Your task to perform on an android device: check android version Image 0: 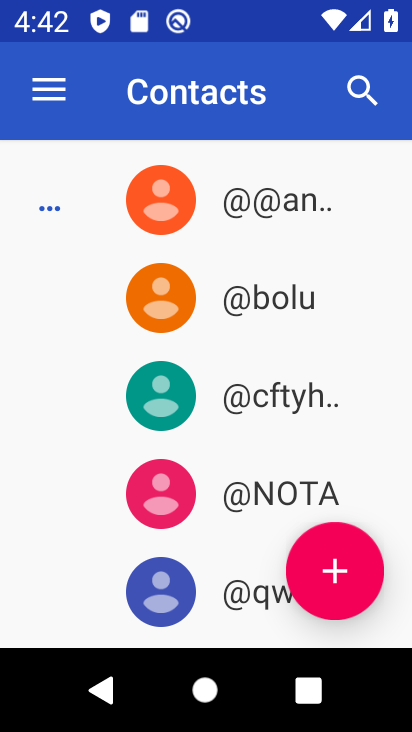
Step 0: press home button
Your task to perform on an android device: check android version Image 1: 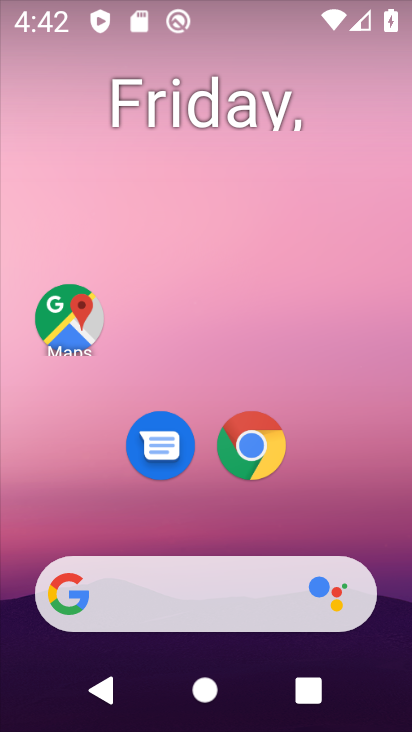
Step 1: drag from (269, 522) to (288, 0)
Your task to perform on an android device: check android version Image 2: 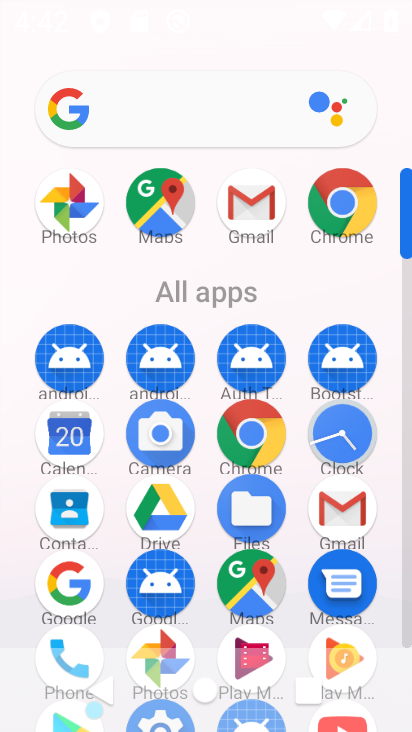
Step 2: click (399, 469)
Your task to perform on an android device: check android version Image 3: 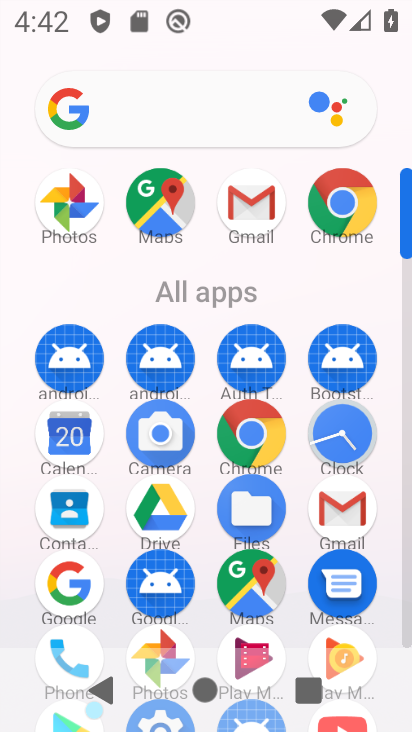
Step 3: click (408, 476)
Your task to perform on an android device: check android version Image 4: 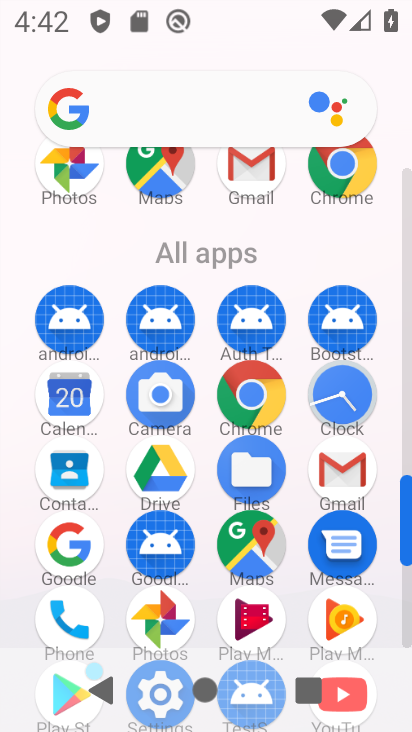
Step 4: click (404, 606)
Your task to perform on an android device: check android version Image 5: 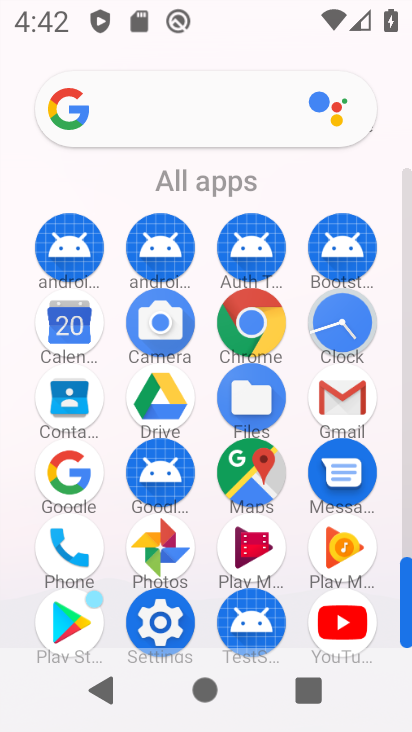
Step 5: click (165, 614)
Your task to perform on an android device: check android version Image 6: 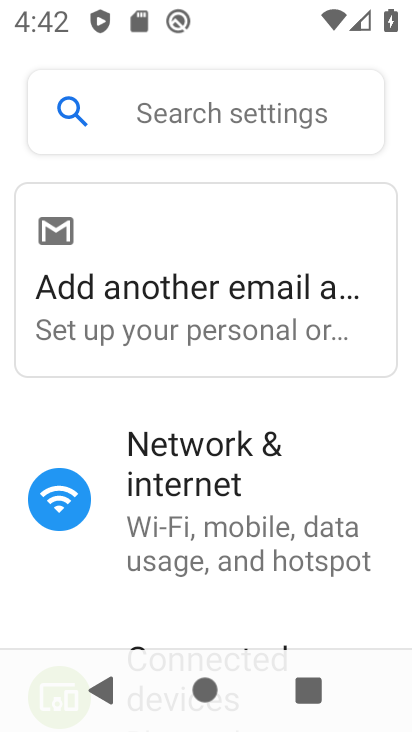
Step 6: drag from (216, 578) to (323, 35)
Your task to perform on an android device: check android version Image 7: 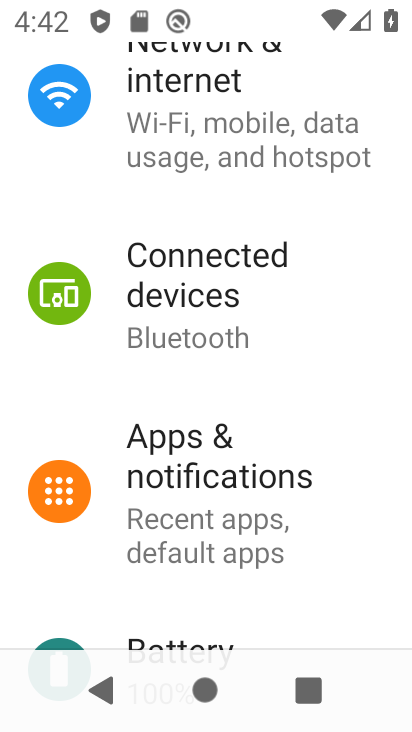
Step 7: drag from (242, 507) to (364, 1)
Your task to perform on an android device: check android version Image 8: 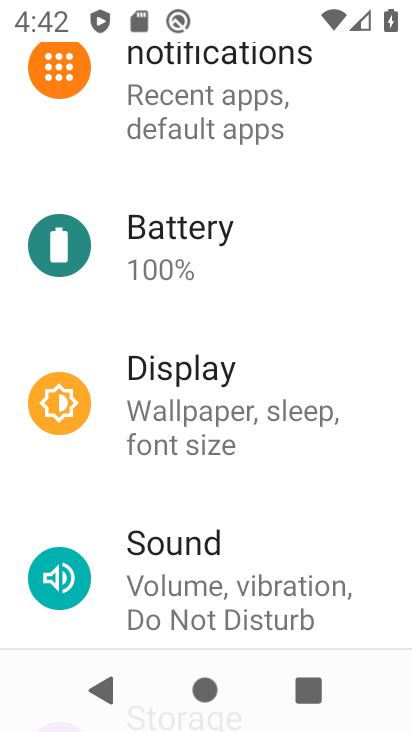
Step 8: drag from (253, 456) to (340, 19)
Your task to perform on an android device: check android version Image 9: 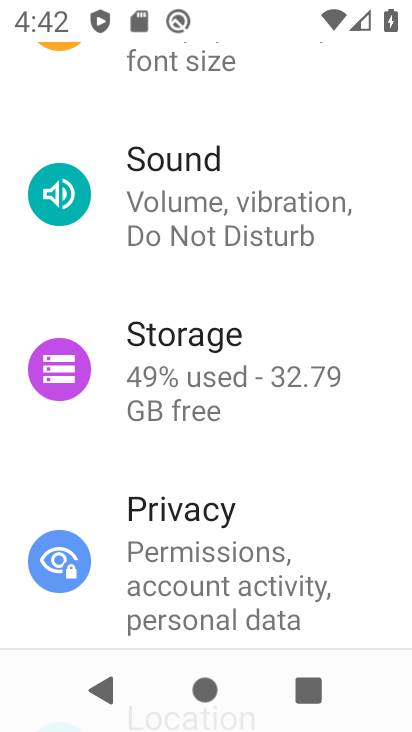
Step 9: drag from (217, 518) to (282, 241)
Your task to perform on an android device: check android version Image 10: 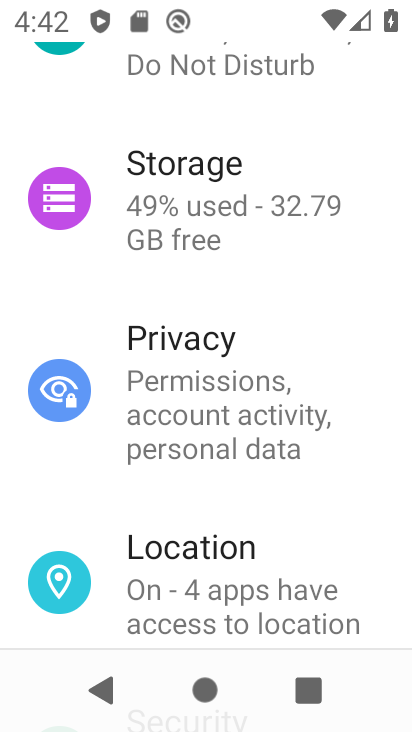
Step 10: drag from (129, 627) to (302, 52)
Your task to perform on an android device: check android version Image 11: 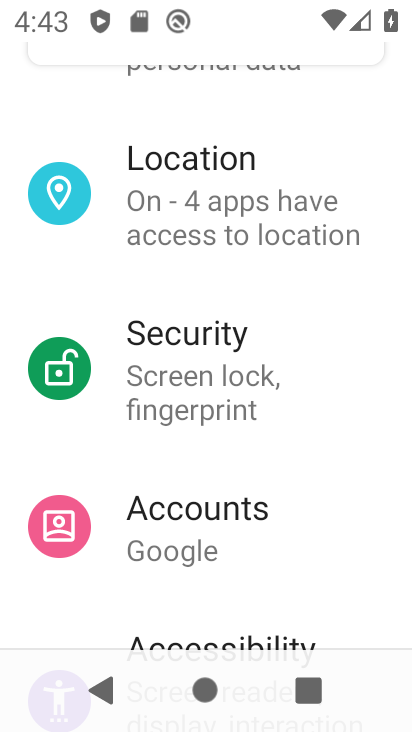
Step 11: drag from (231, 557) to (359, 9)
Your task to perform on an android device: check android version Image 12: 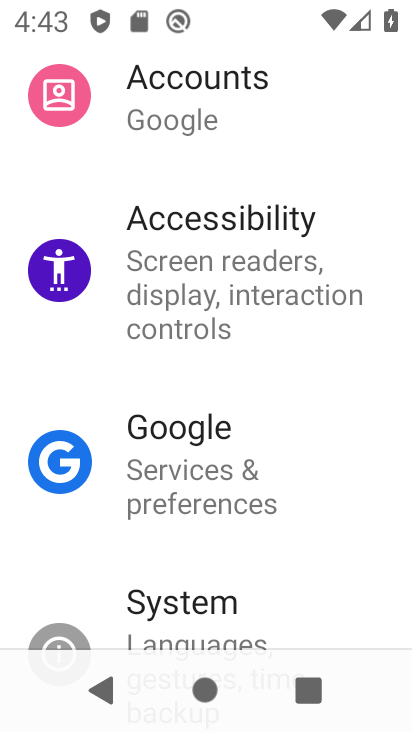
Step 12: drag from (246, 578) to (336, 78)
Your task to perform on an android device: check android version Image 13: 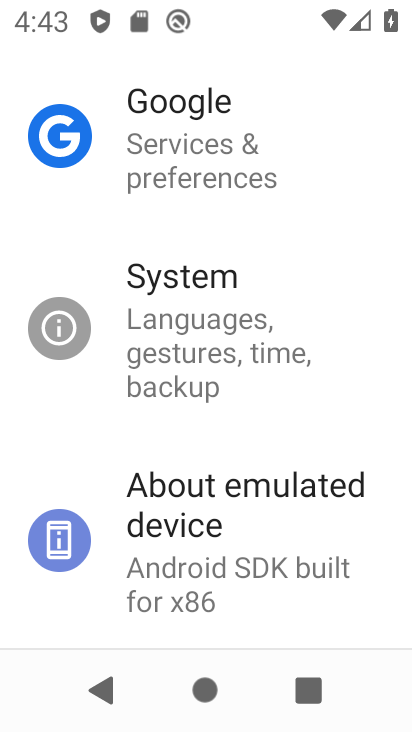
Step 13: click (255, 565)
Your task to perform on an android device: check android version Image 14: 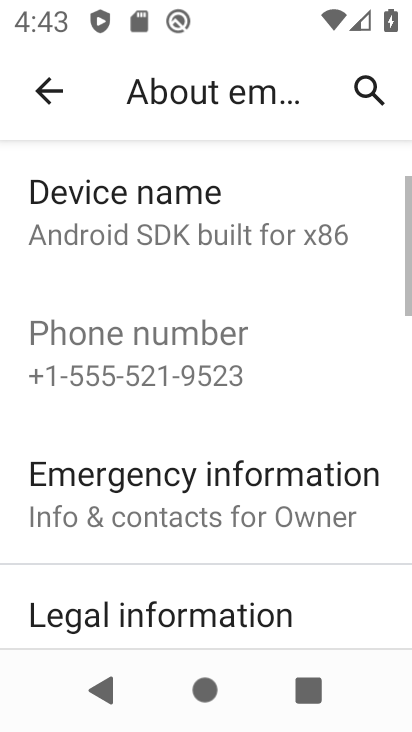
Step 14: drag from (255, 565) to (277, 192)
Your task to perform on an android device: check android version Image 15: 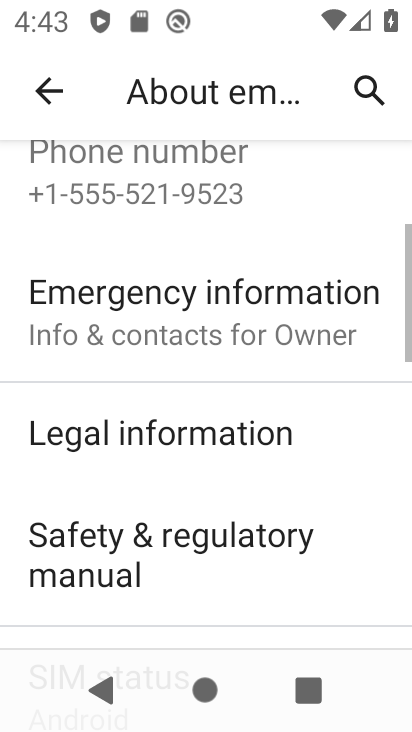
Step 15: drag from (210, 597) to (211, 289)
Your task to perform on an android device: check android version Image 16: 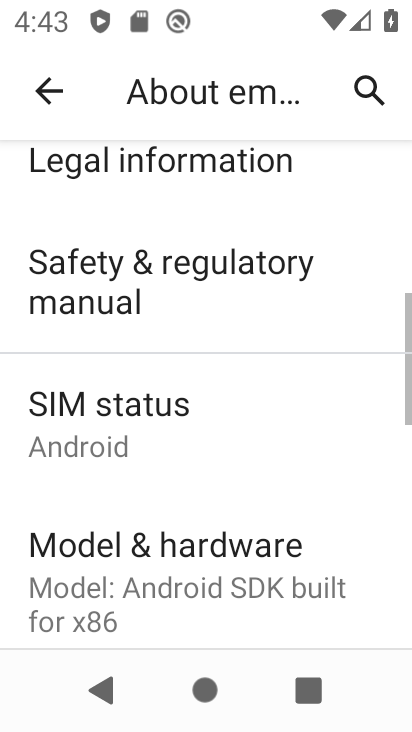
Step 16: drag from (136, 556) to (204, 259)
Your task to perform on an android device: check android version Image 17: 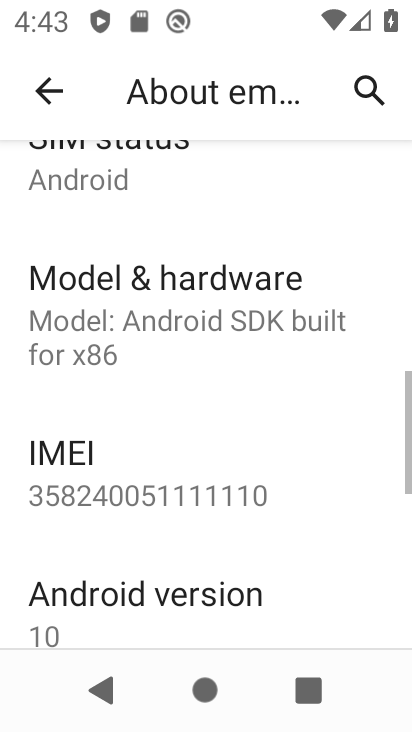
Step 17: click (153, 590)
Your task to perform on an android device: check android version Image 18: 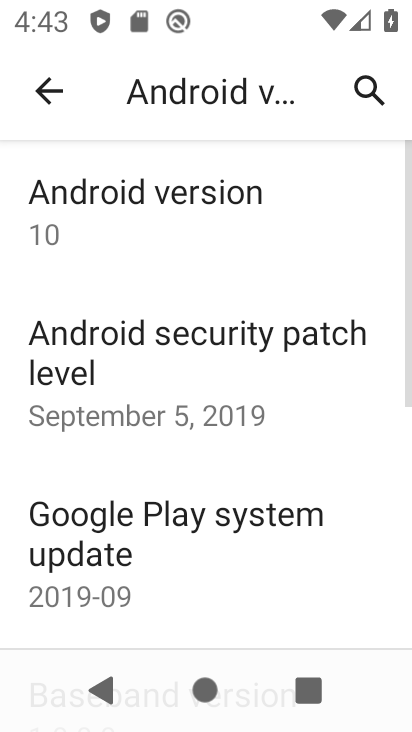
Step 18: task complete